Your task to perform on an android device: allow notifications from all sites in the chrome app Image 0: 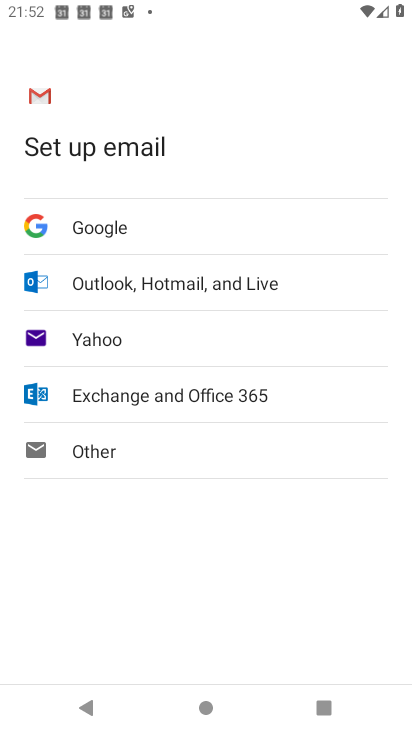
Step 0: press home button
Your task to perform on an android device: allow notifications from all sites in the chrome app Image 1: 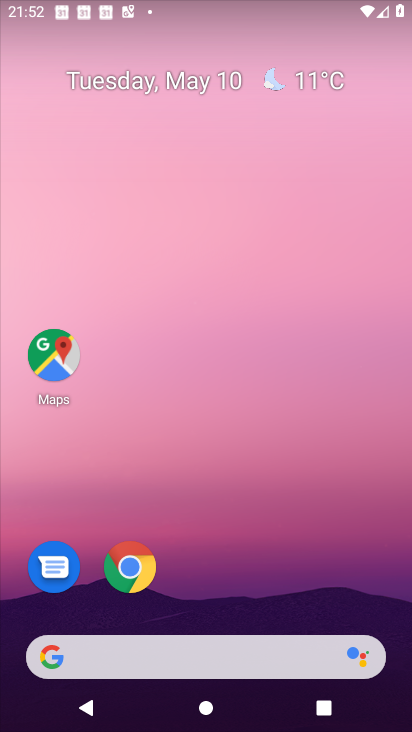
Step 1: click (136, 577)
Your task to perform on an android device: allow notifications from all sites in the chrome app Image 2: 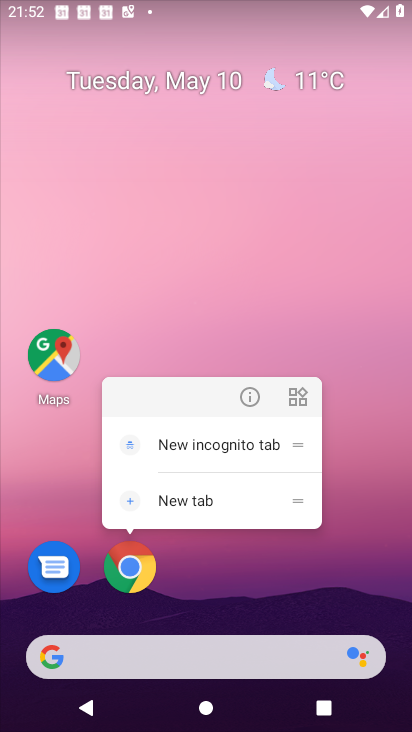
Step 2: click (136, 568)
Your task to perform on an android device: allow notifications from all sites in the chrome app Image 3: 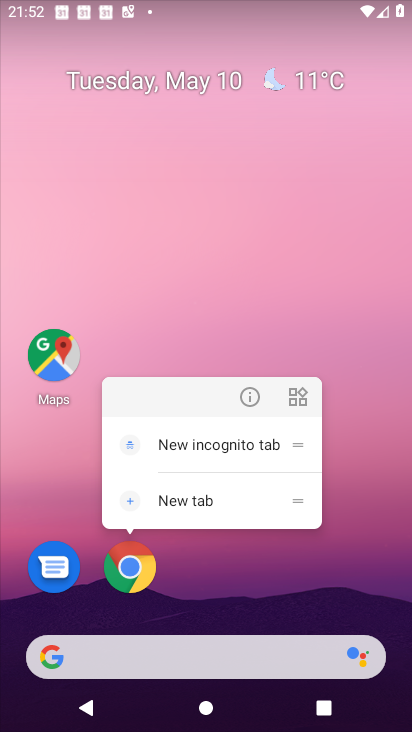
Step 3: click (135, 568)
Your task to perform on an android device: allow notifications from all sites in the chrome app Image 4: 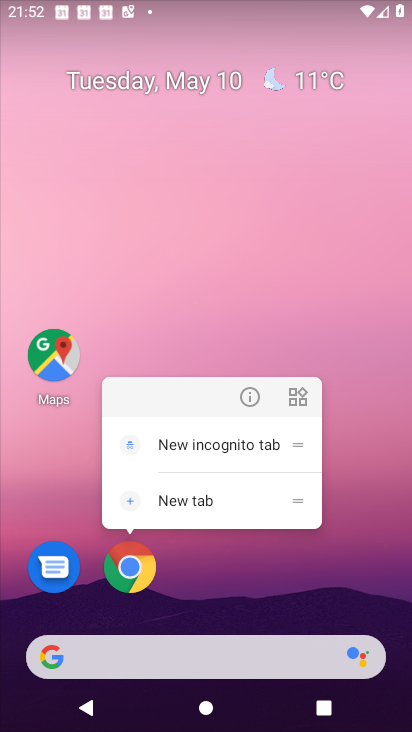
Step 4: click (127, 561)
Your task to perform on an android device: allow notifications from all sites in the chrome app Image 5: 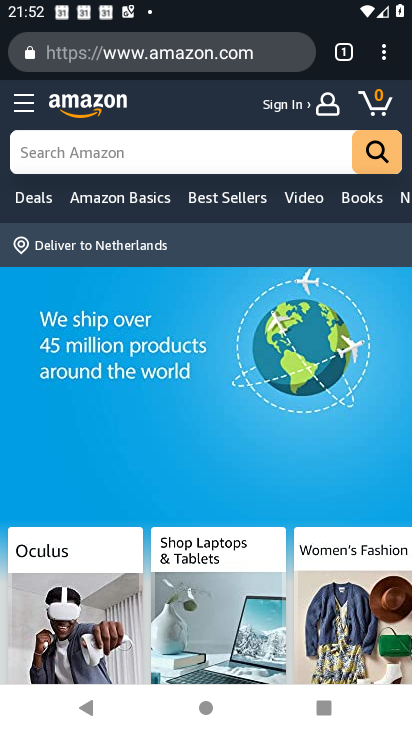
Step 5: click (389, 50)
Your task to perform on an android device: allow notifications from all sites in the chrome app Image 6: 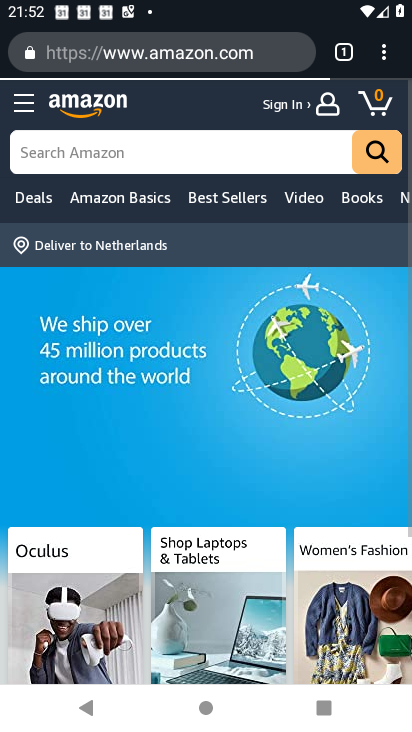
Step 6: click (387, 56)
Your task to perform on an android device: allow notifications from all sites in the chrome app Image 7: 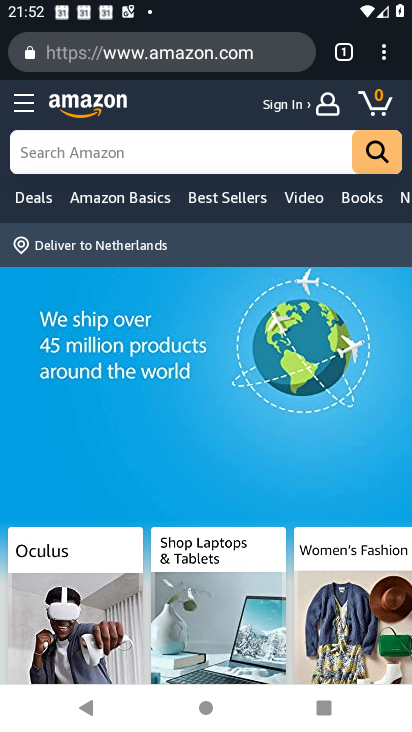
Step 7: click (378, 56)
Your task to perform on an android device: allow notifications from all sites in the chrome app Image 8: 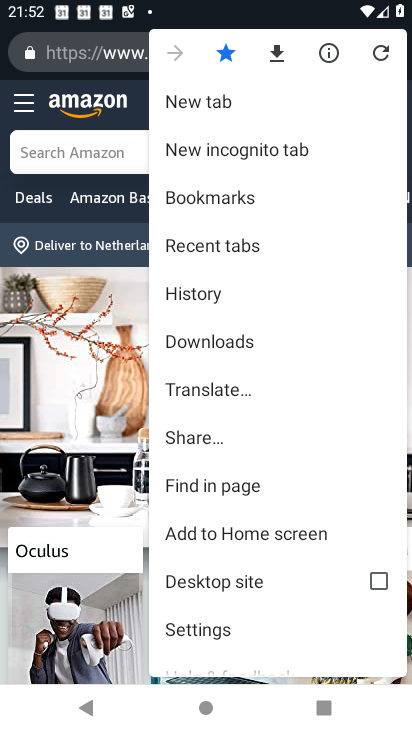
Step 8: click (218, 638)
Your task to perform on an android device: allow notifications from all sites in the chrome app Image 9: 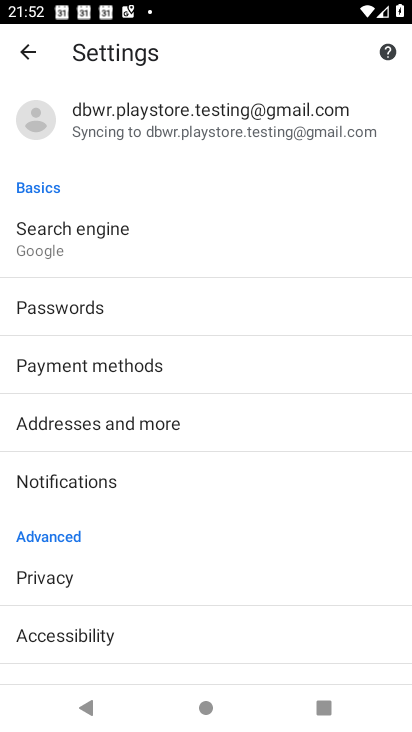
Step 9: drag from (112, 642) to (147, 287)
Your task to perform on an android device: allow notifications from all sites in the chrome app Image 10: 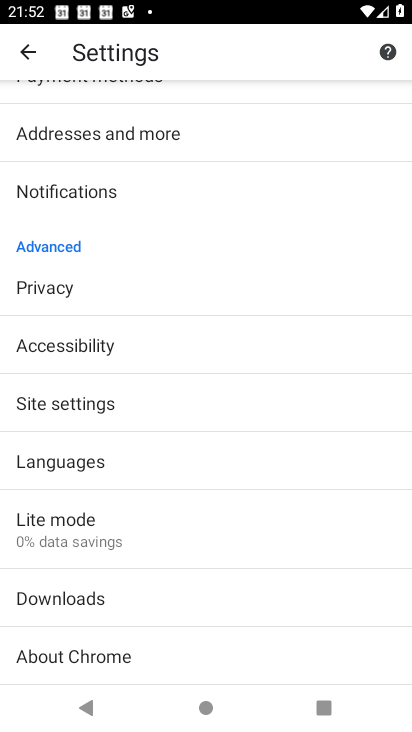
Step 10: click (43, 401)
Your task to perform on an android device: allow notifications from all sites in the chrome app Image 11: 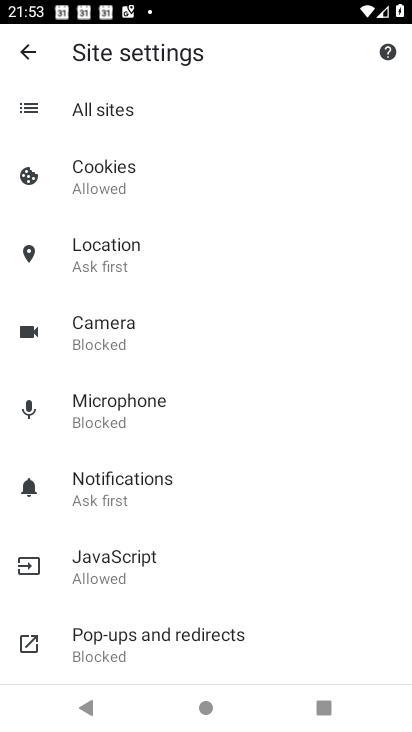
Step 11: click (102, 501)
Your task to perform on an android device: allow notifications from all sites in the chrome app Image 12: 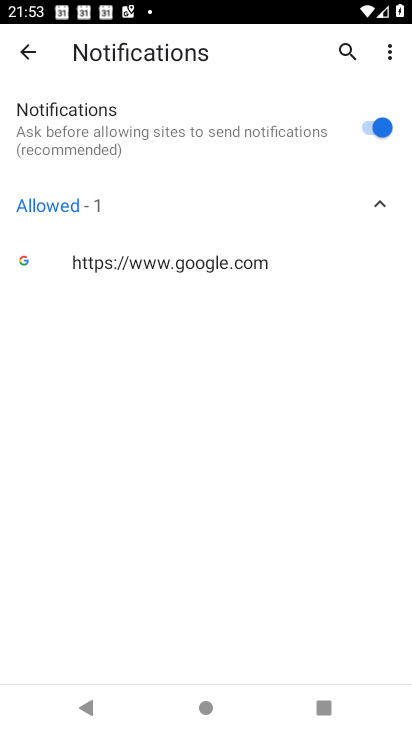
Step 12: task complete